Your task to perform on an android device: turn on priority inbox in the gmail app Image 0: 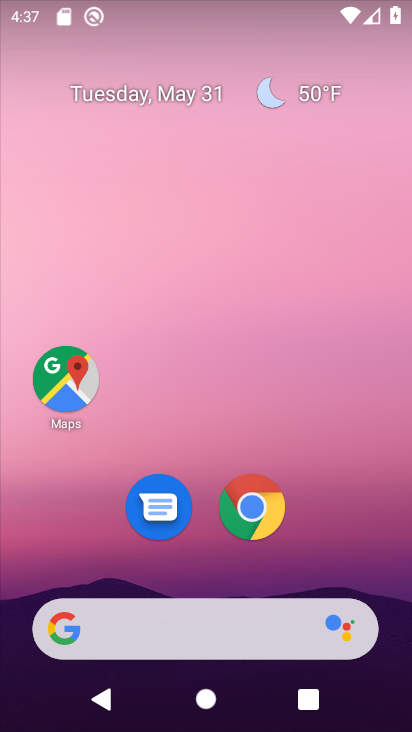
Step 0: drag from (303, 495) to (327, 56)
Your task to perform on an android device: turn on priority inbox in the gmail app Image 1: 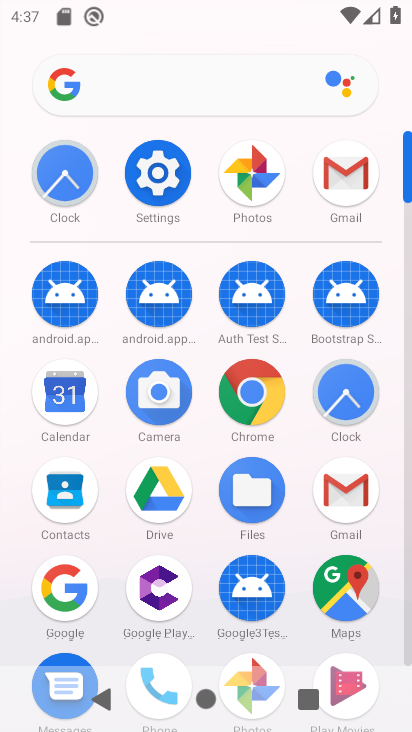
Step 1: click (346, 172)
Your task to perform on an android device: turn on priority inbox in the gmail app Image 2: 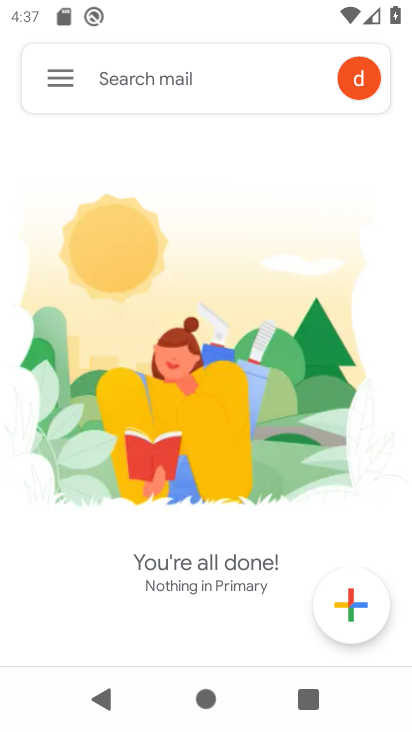
Step 2: click (66, 75)
Your task to perform on an android device: turn on priority inbox in the gmail app Image 3: 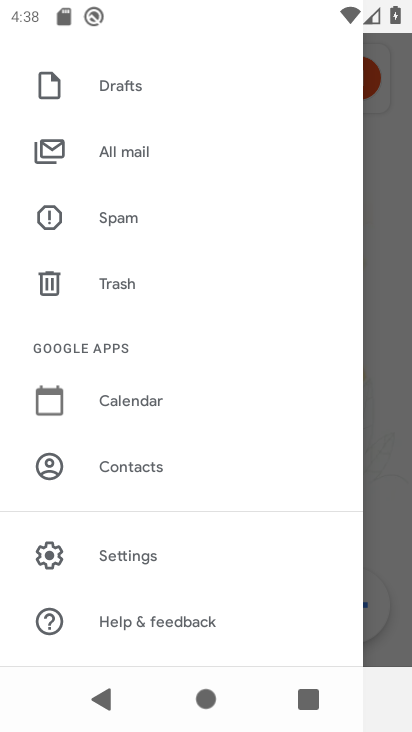
Step 3: click (155, 552)
Your task to perform on an android device: turn on priority inbox in the gmail app Image 4: 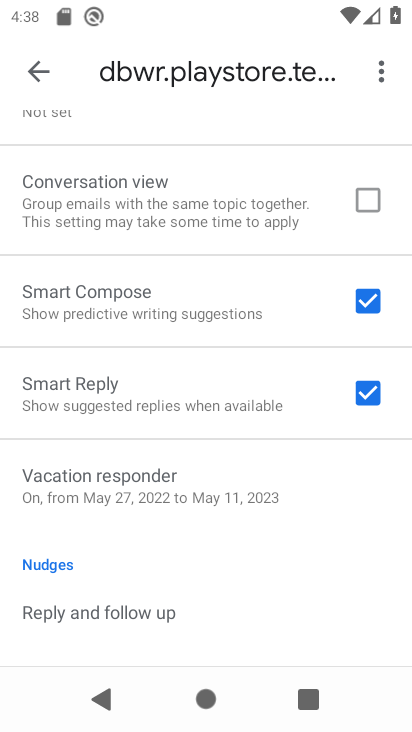
Step 4: drag from (117, 173) to (211, 557)
Your task to perform on an android device: turn on priority inbox in the gmail app Image 5: 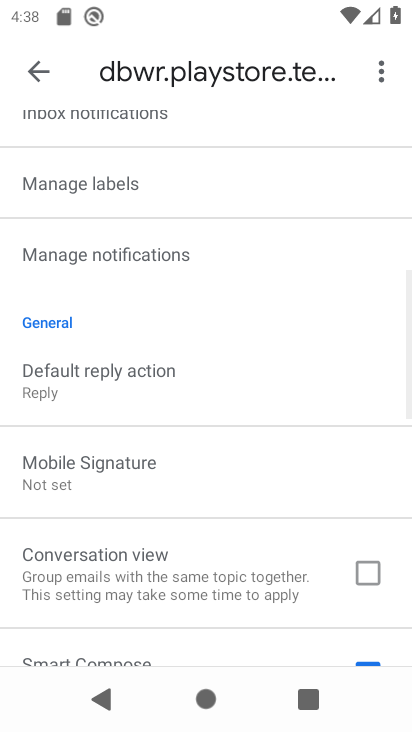
Step 5: drag from (173, 195) to (233, 499)
Your task to perform on an android device: turn on priority inbox in the gmail app Image 6: 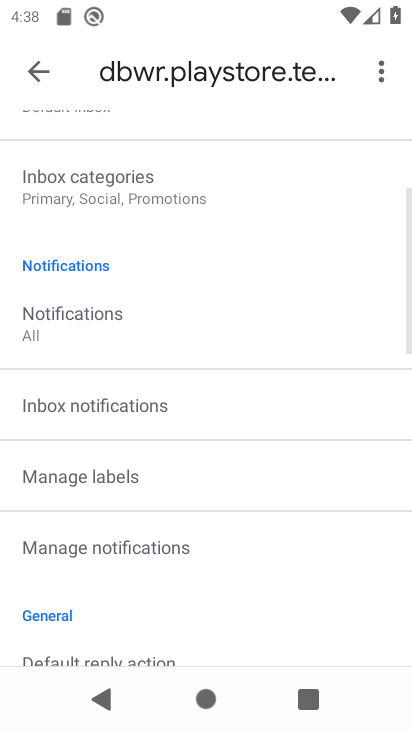
Step 6: drag from (183, 179) to (211, 413)
Your task to perform on an android device: turn on priority inbox in the gmail app Image 7: 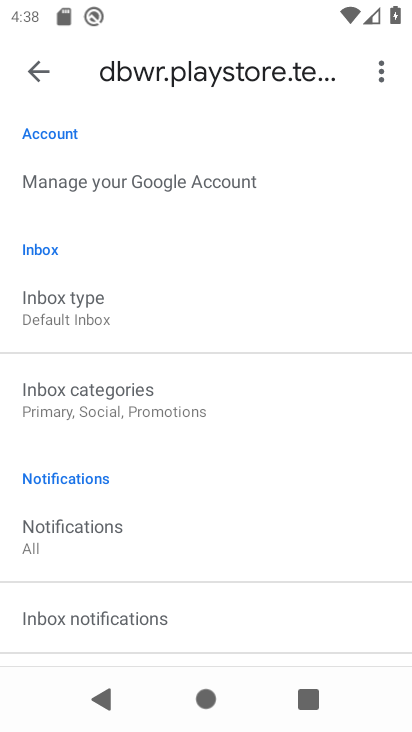
Step 7: click (99, 297)
Your task to perform on an android device: turn on priority inbox in the gmail app Image 8: 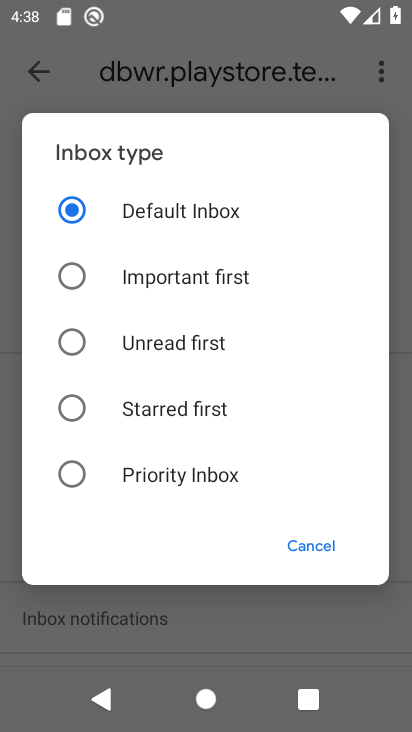
Step 8: click (70, 475)
Your task to perform on an android device: turn on priority inbox in the gmail app Image 9: 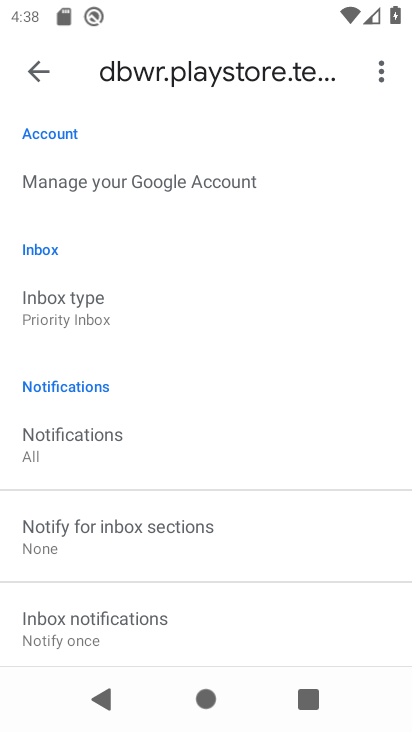
Step 9: task complete